Your task to perform on an android device: change text size in settings app Image 0: 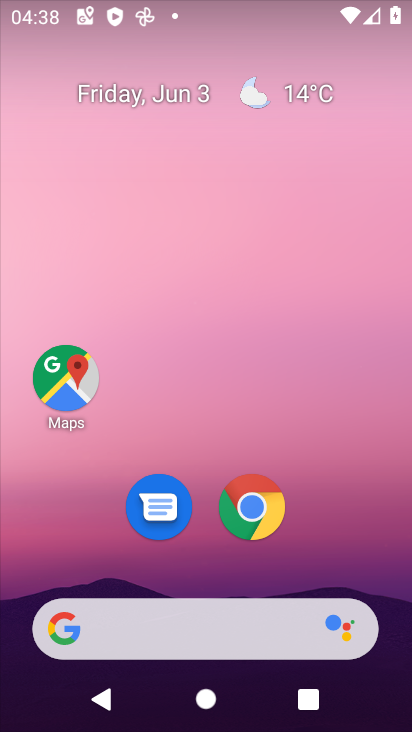
Step 0: drag from (364, 561) to (320, 16)
Your task to perform on an android device: change text size in settings app Image 1: 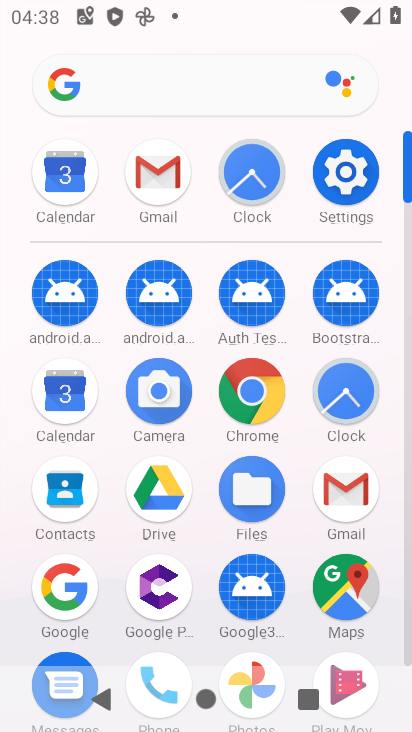
Step 1: click (331, 186)
Your task to perform on an android device: change text size in settings app Image 2: 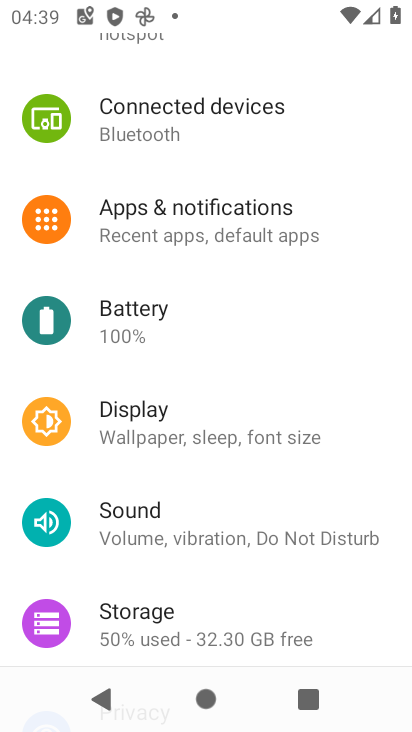
Step 2: click (242, 433)
Your task to perform on an android device: change text size in settings app Image 3: 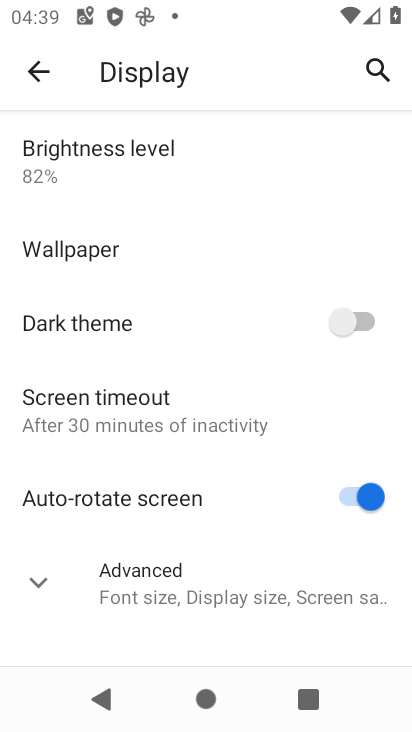
Step 3: click (216, 589)
Your task to perform on an android device: change text size in settings app Image 4: 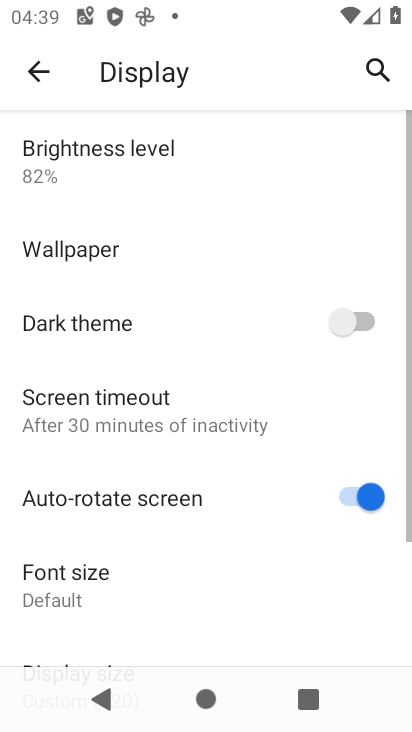
Step 4: drag from (243, 598) to (209, 276)
Your task to perform on an android device: change text size in settings app Image 5: 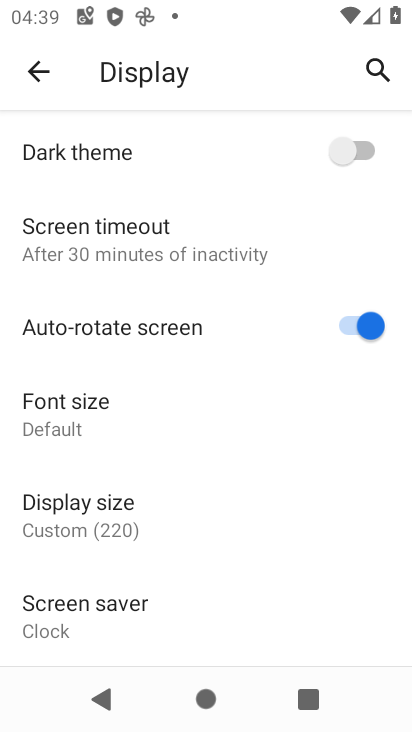
Step 5: click (97, 421)
Your task to perform on an android device: change text size in settings app Image 6: 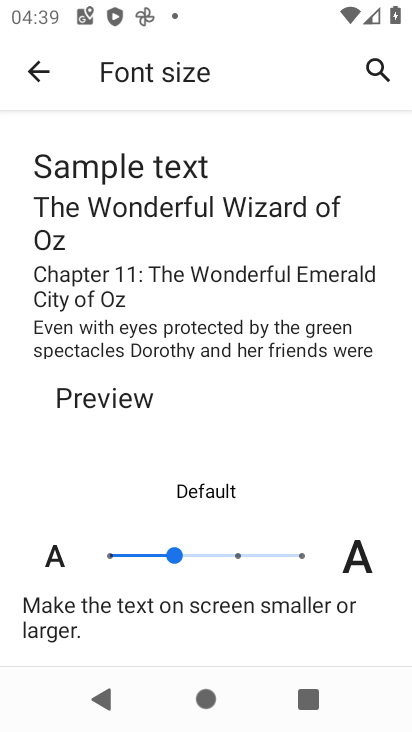
Step 6: click (238, 555)
Your task to perform on an android device: change text size in settings app Image 7: 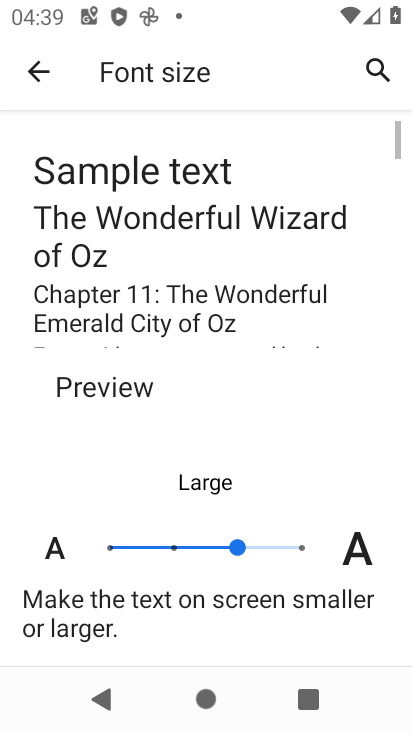
Step 7: task complete